Your task to perform on an android device: Check the weather Image 0: 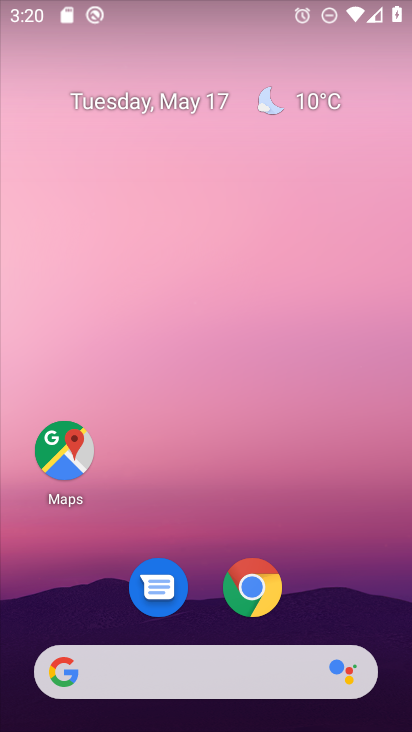
Step 0: drag from (311, 440) to (265, 73)
Your task to perform on an android device: Check the weather Image 1: 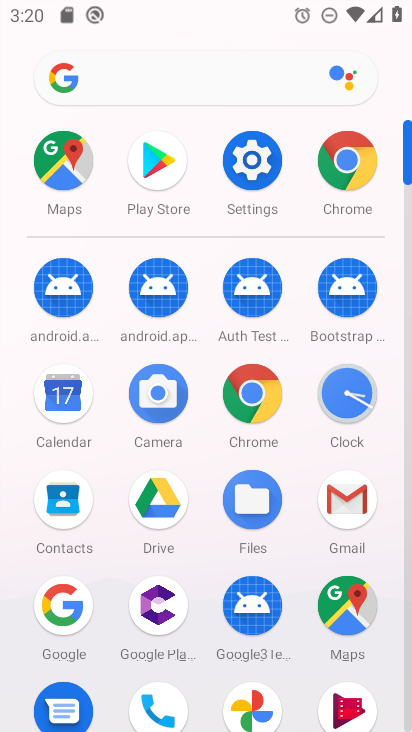
Step 1: drag from (10, 546) to (23, 216)
Your task to perform on an android device: Check the weather Image 2: 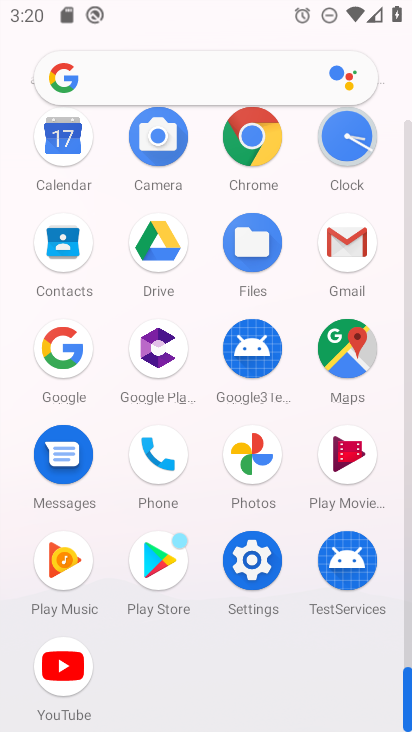
Step 2: click (243, 133)
Your task to perform on an android device: Check the weather Image 3: 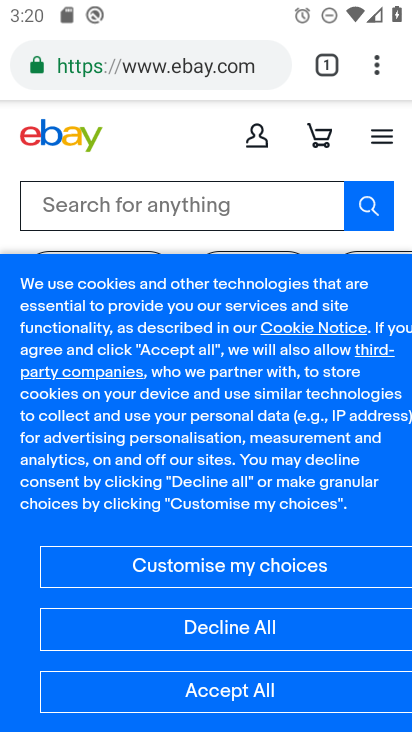
Step 3: click (214, 66)
Your task to perform on an android device: Check the weather Image 4: 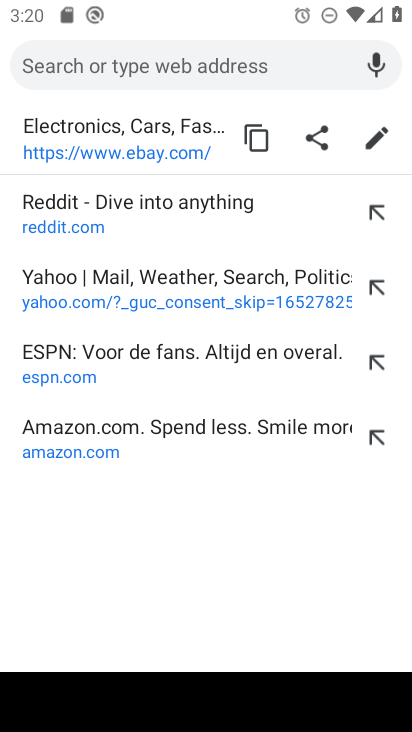
Step 4: type "Check the weather"
Your task to perform on an android device: Check the weather Image 5: 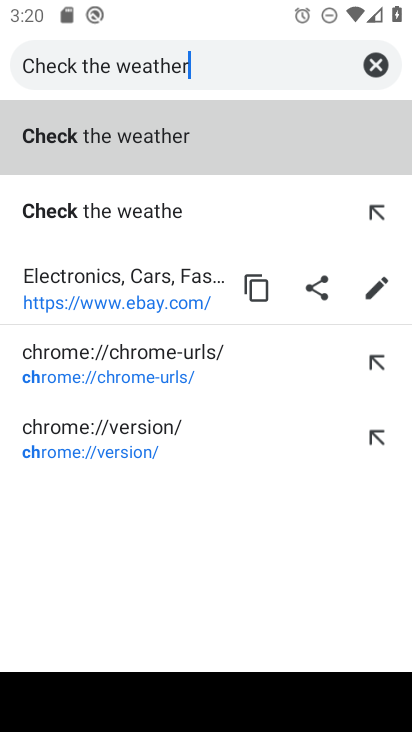
Step 5: type ""
Your task to perform on an android device: Check the weather Image 6: 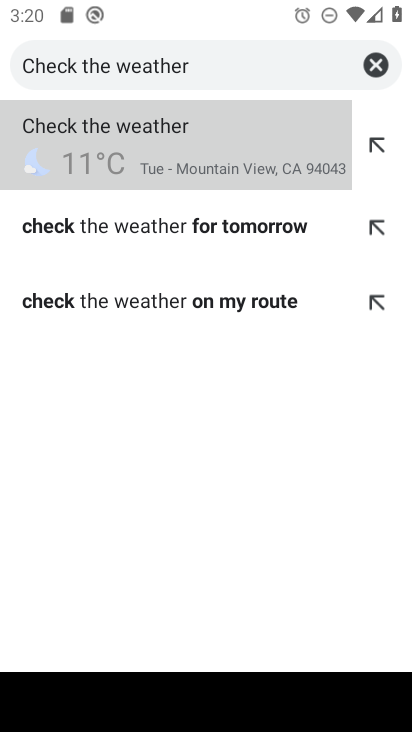
Step 6: click (199, 147)
Your task to perform on an android device: Check the weather Image 7: 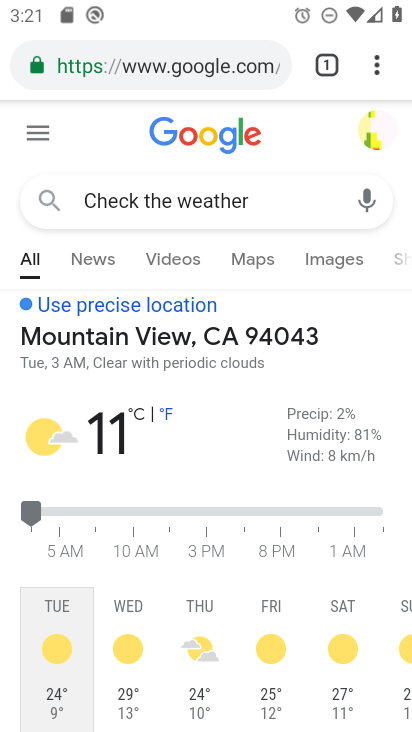
Step 7: task complete